Your task to perform on an android device: stop showing notifications on the lock screen Image 0: 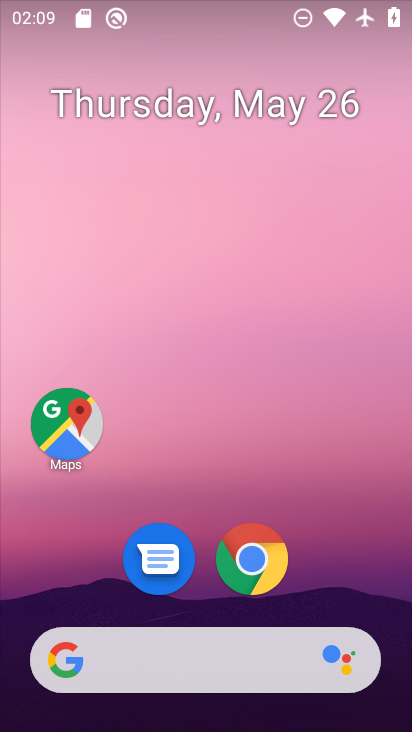
Step 0: press home button
Your task to perform on an android device: stop showing notifications on the lock screen Image 1: 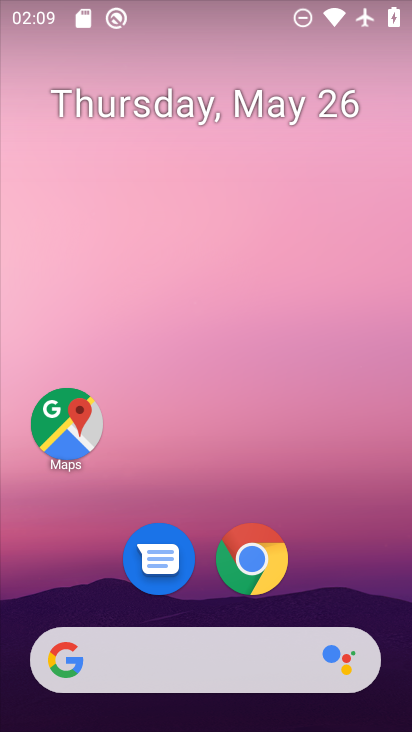
Step 1: drag from (195, 671) to (269, 261)
Your task to perform on an android device: stop showing notifications on the lock screen Image 2: 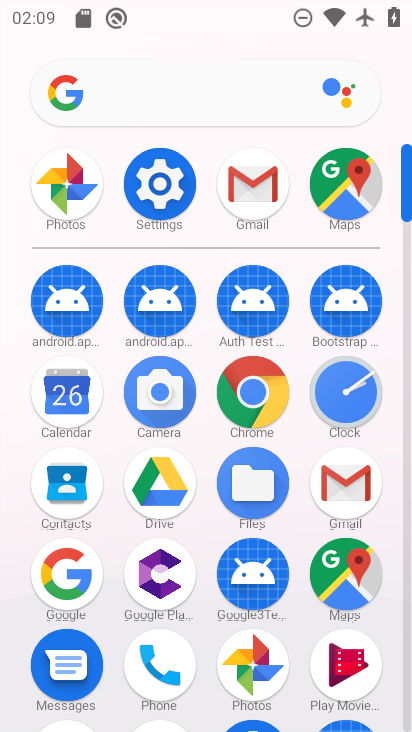
Step 2: click (170, 197)
Your task to perform on an android device: stop showing notifications on the lock screen Image 3: 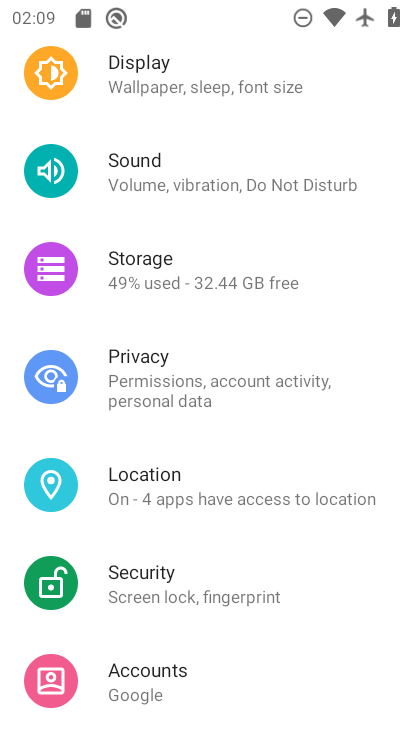
Step 3: drag from (295, 139) to (308, 565)
Your task to perform on an android device: stop showing notifications on the lock screen Image 4: 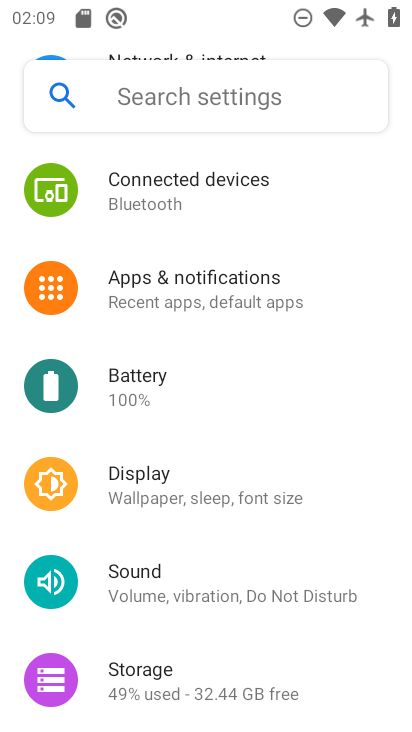
Step 4: click (205, 276)
Your task to perform on an android device: stop showing notifications on the lock screen Image 5: 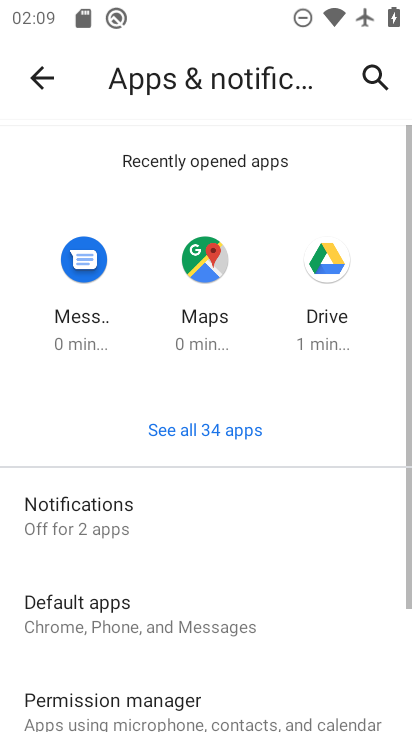
Step 5: click (127, 509)
Your task to perform on an android device: stop showing notifications on the lock screen Image 6: 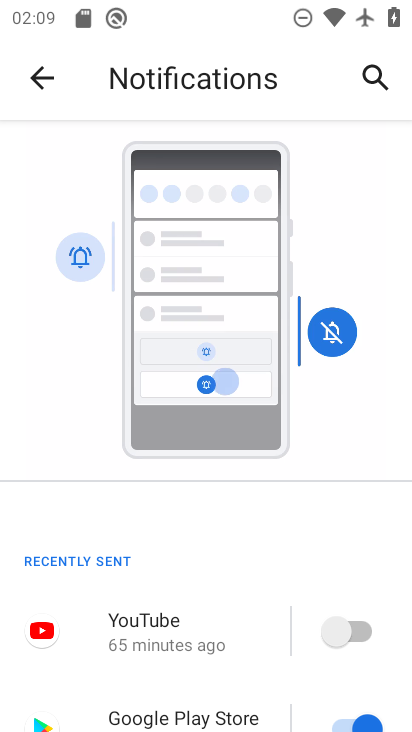
Step 6: drag from (149, 669) to (183, 252)
Your task to perform on an android device: stop showing notifications on the lock screen Image 7: 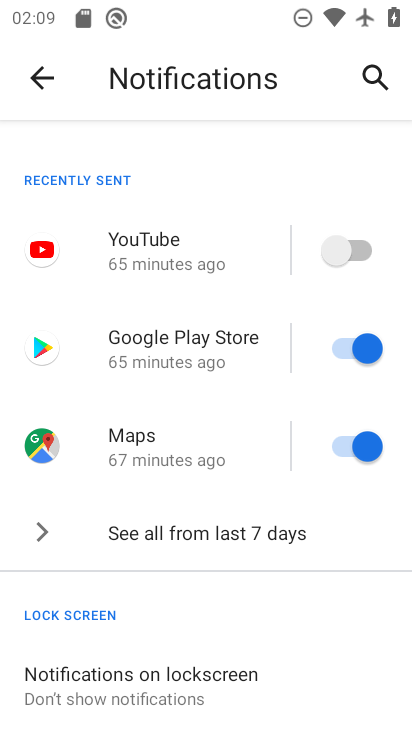
Step 7: drag from (239, 662) to (228, 456)
Your task to perform on an android device: stop showing notifications on the lock screen Image 8: 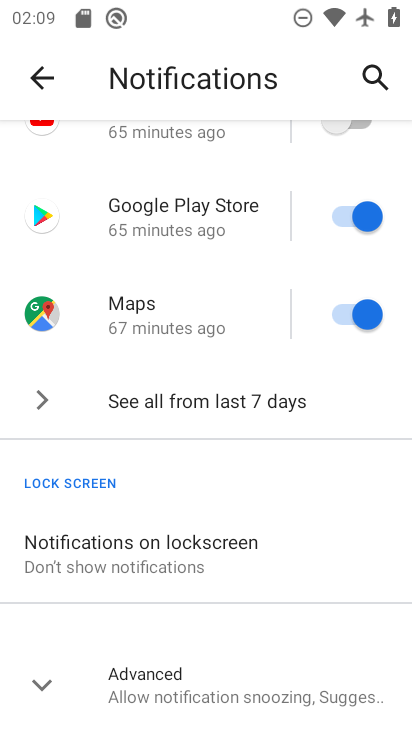
Step 8: click (127, 559)
Your task to perform on an android device: stop showing notifications on the lock screen Image 9: 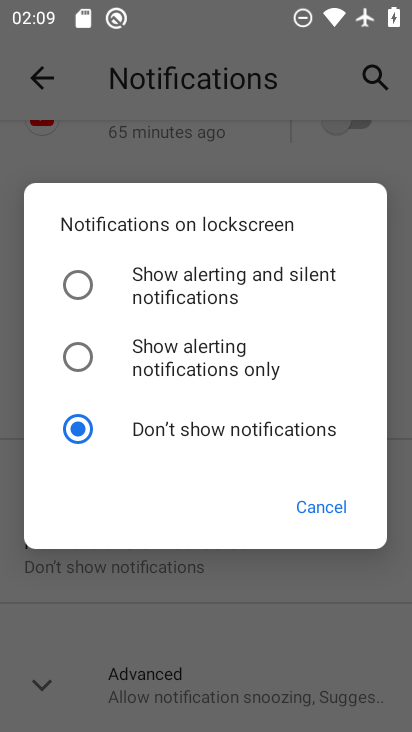
Step 9: task complete